Your task to perform on an android device: turn on airplane mode Image 0: 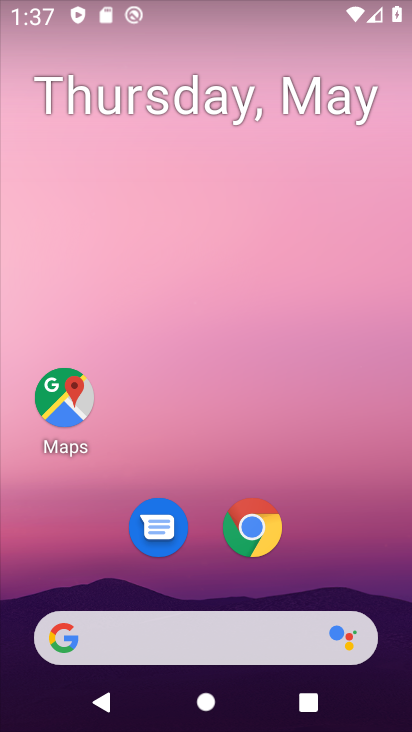
Step 0: drag from (350, 6) to (338, 715)
Your task to perform on an android device: turn on airplane mode Image 1: 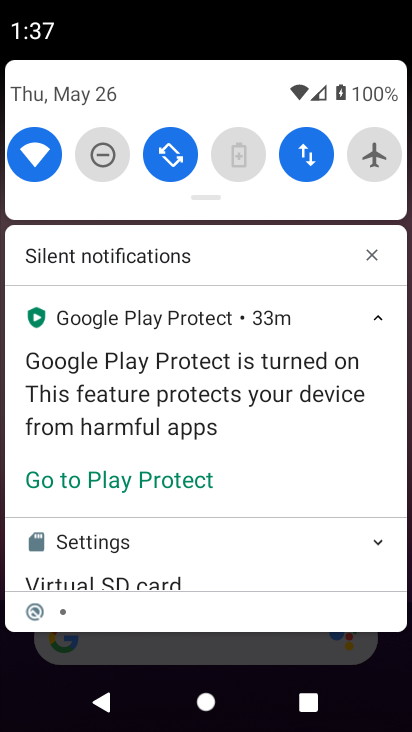
Step 1: click (386, 163)
Your task to perform on an android device: turn on airplane mode Image 2: 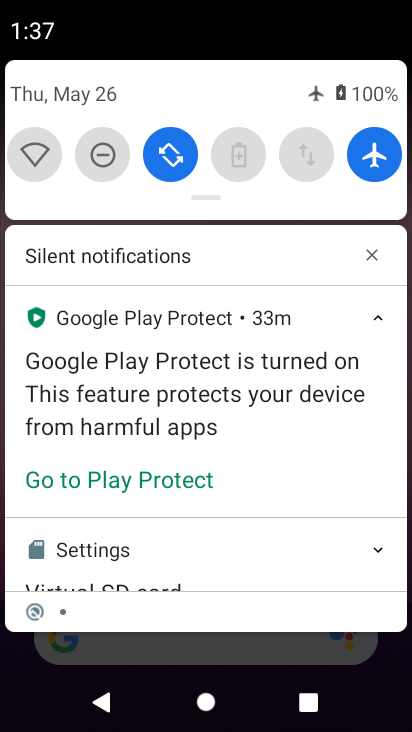
Step 2: task complete